Your task to perform on an android device: toggle notifications settings in the gmail app Image 0: 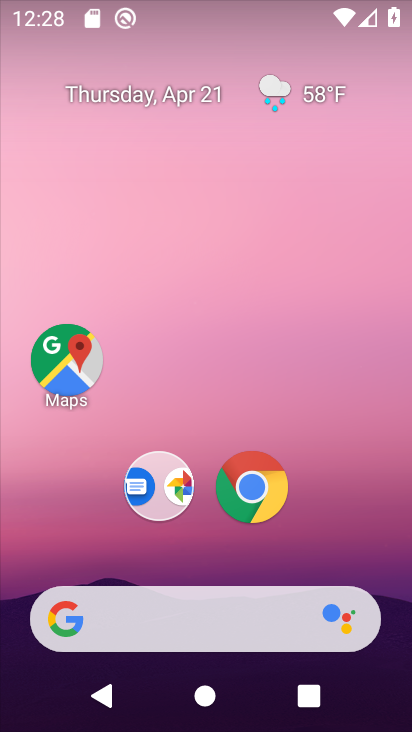
Step 0: drag from (261, 647) to (295, 189)
Your task to perform on an android device: toggle notifications settings in the gmail app Image 1: 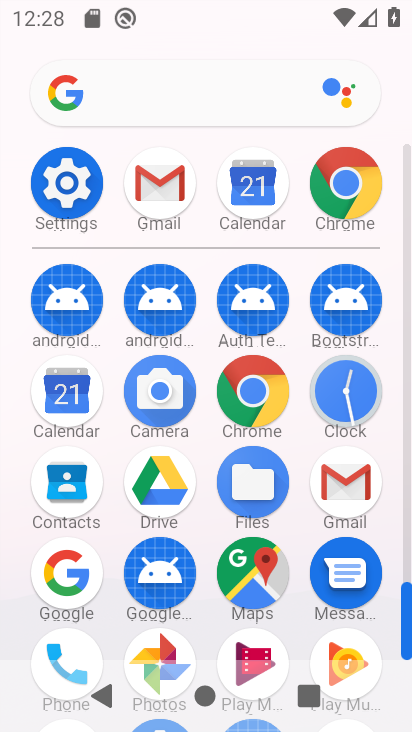
Step 1: click (144, 204)
Your task to perform on an android device: toggle notifications settings in the gmail app Image 2: 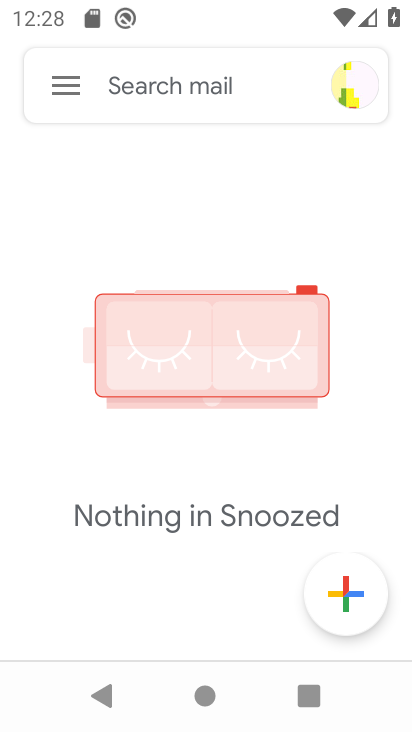
Step 2: click (68, 88)
Your task to perform on an android device: toggle notifications settings in the gmail app Image 3: 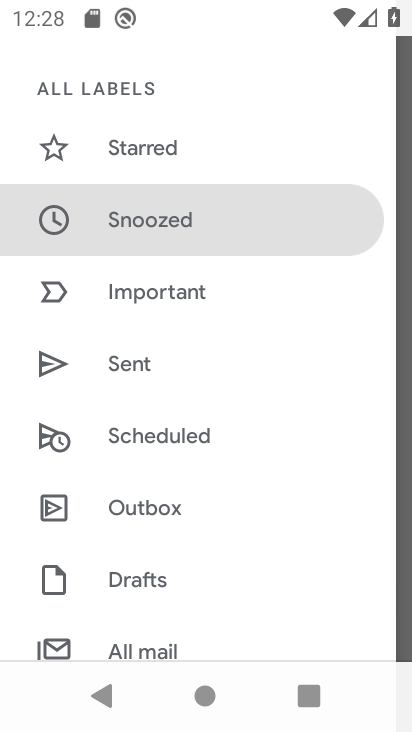
Step 3: drag from (133, 595) to (164, 407)
Your task to perform on an android device: toggle notifications settings in the gmail app Image 4: 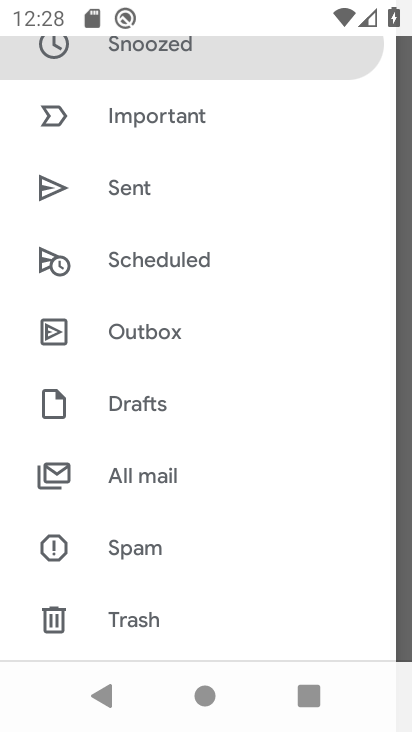
Step 4: drag from (162, 596) to (151, 438)
Your task to perform on an android device: toggle notifications settings in the gmail app Image 5: 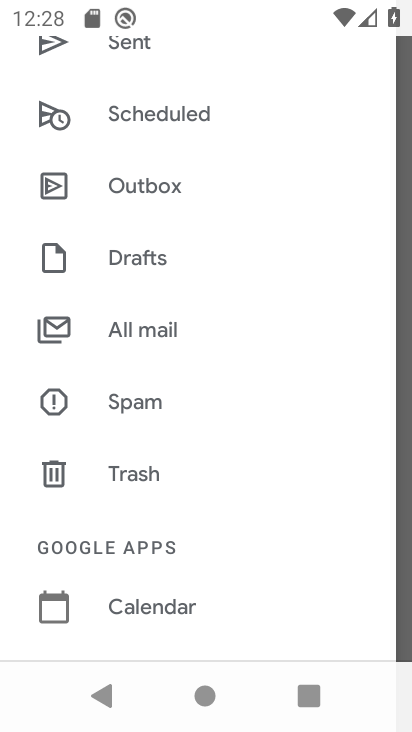
Step 5: drag from (175, 515) to (159, 337)
Your task to perform on an android device: toggle notifications settings in the gmail app Image 6: 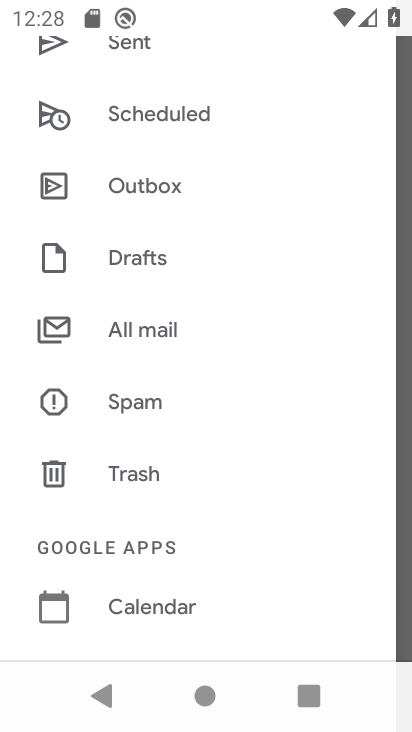
Step 6: drag from (114, 485) to (180, 362)
Your task to perform on an android device: toggle notifications settings in the gmail app Image 7: 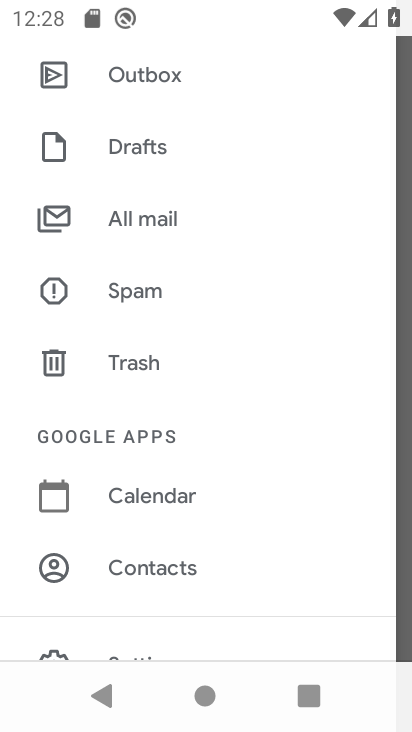
Step 7: click (123, 644)
Your task to perform on an android device: toggle notifications settings in the gmail app Image 8: 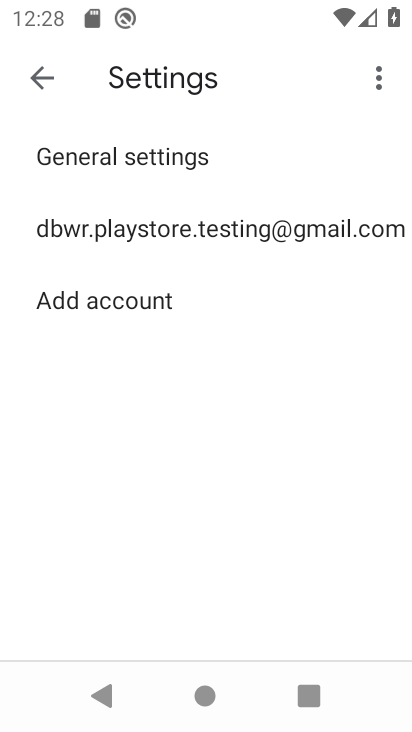
Step 8: click (152, 240)
Your task to perform on an android device: toggle notifications settings in the gmail app Image 9: 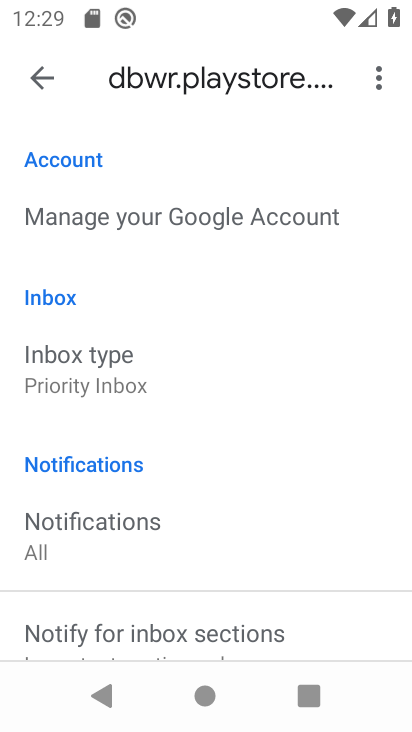
Step 9: click (85, 523)
Your task to perform on an android device: toggle notifications settings in the gmail app Image 10: 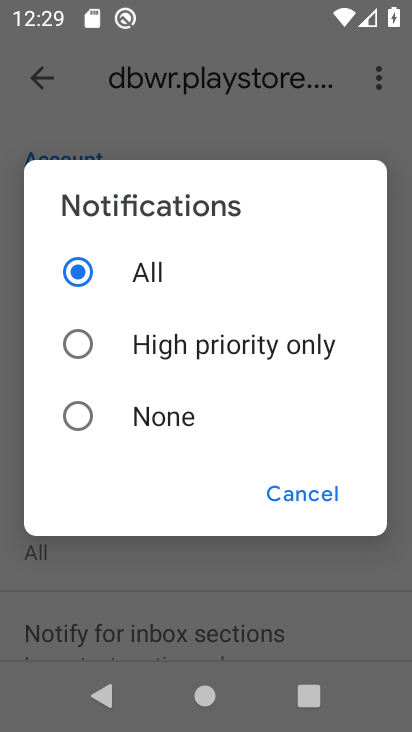
Step 10: task complete